Your task to perform on an android device: Open Reddit.com Image 0: 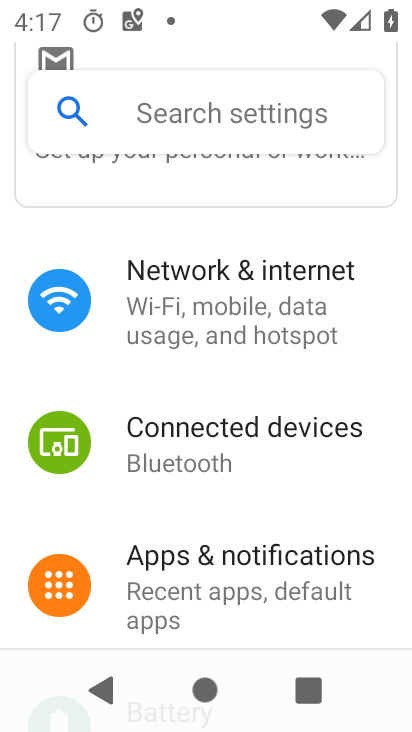
Step 0: press home button
Your task to perform on an android device: Open Reddit.com Image 1: 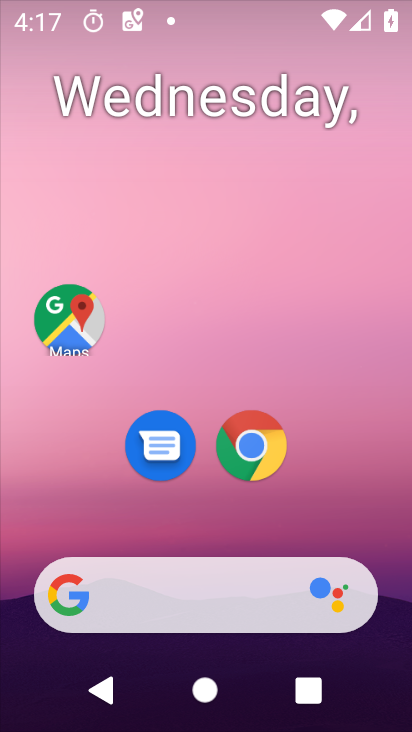
Step 1: drag from (206, 523) to (225, 97)
Your task to perform on an android device: Open Reddit.com Image 2: 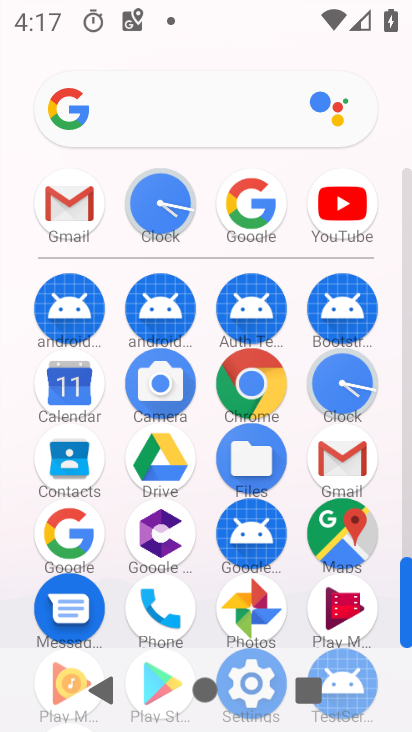
Step 2: click (260, 204)
Your task to perform on an android device: Open Reddit.com Image 3: 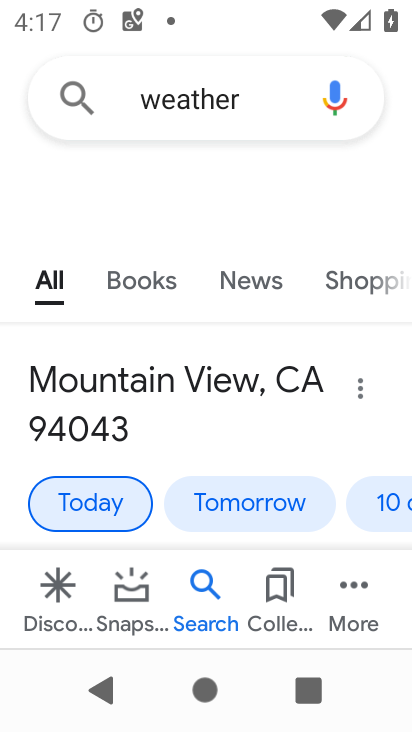
Step 3: click (253, 99)
Your task to perform on an android device: Open Reddit.com Image 4: 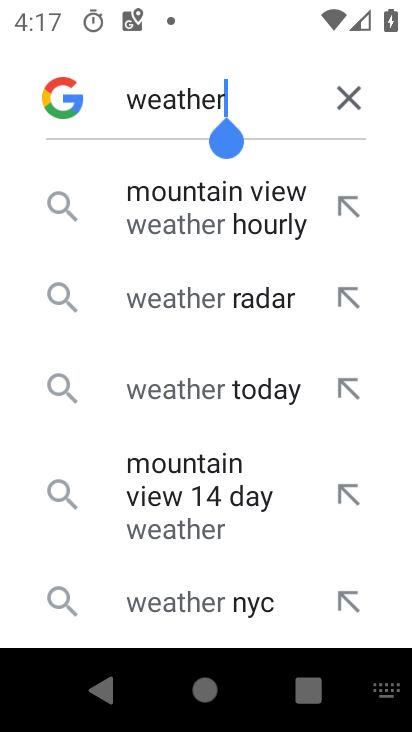
Step 4: click (355, 102)
Your task to perform on an android device: Open Reddit.com Image 5: 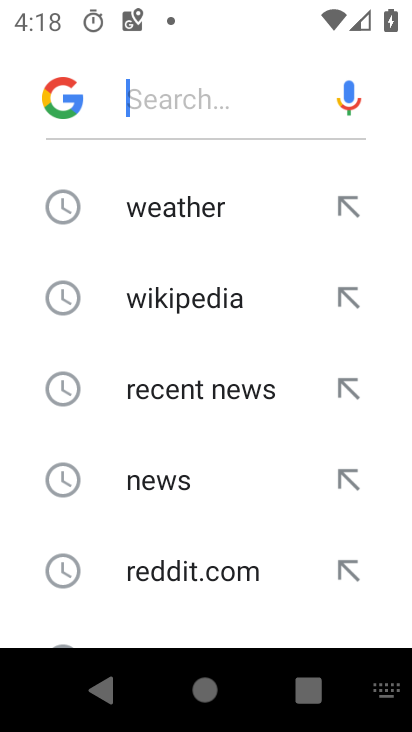
Step 5: type "reddit.com"
Your task to perform on an android device: Open Reddit.com Image 6: 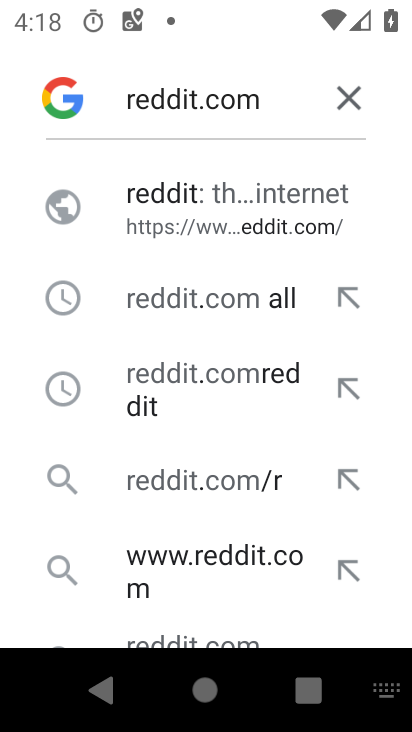
Step 6: click (199, 546)
Your task to perform on an android device: Open Reddit.com Image 7: 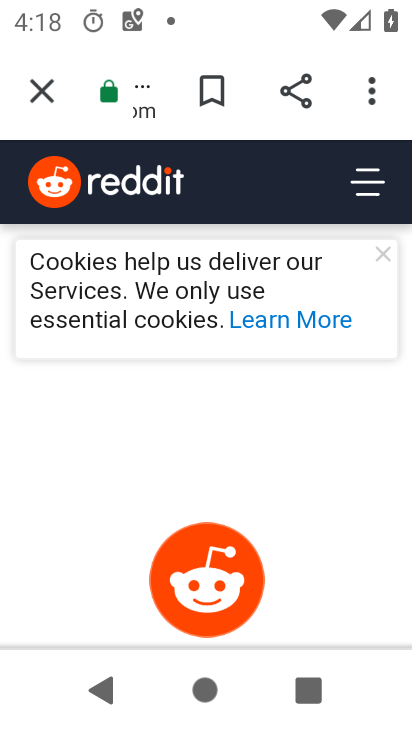
Step 7: task complete